Your task to perform on an android device: check out phone information Image 0: 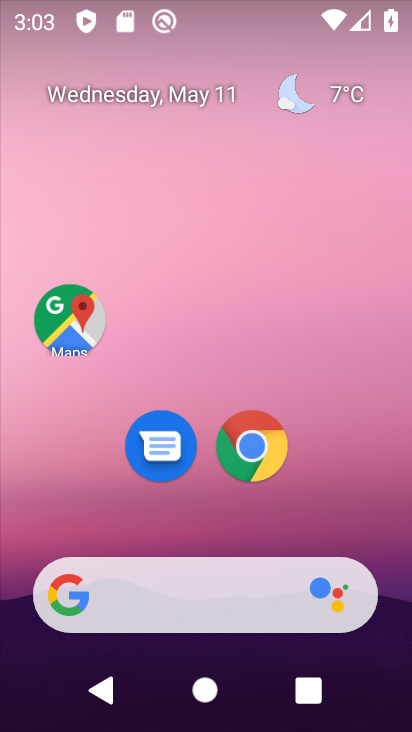
Step 0: drag from (343, 691) to (143, 89)
Your task to perform on an android device: check out phone information Image 1: 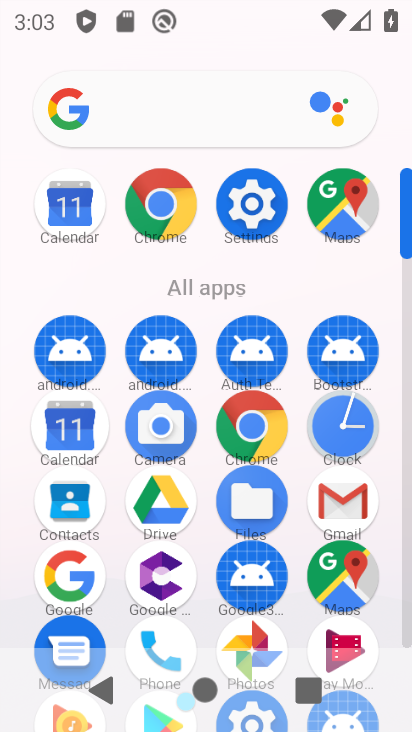
Step 1: click (253, 219)
Your task to perform on an android device: check out phone information Image 2: 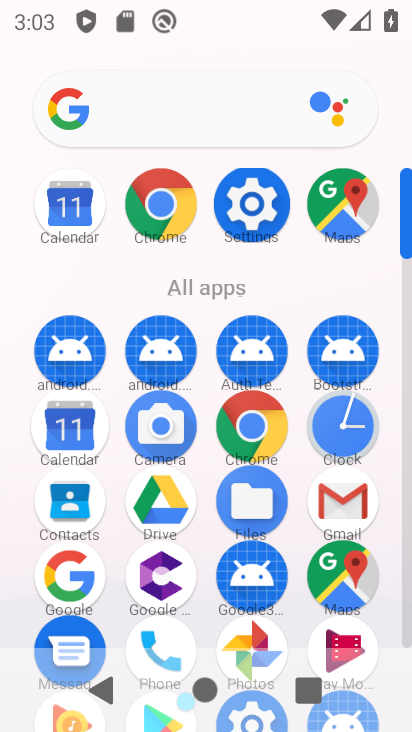
Step 2: click (251, 216)
Your task to perform on an android device: check out phone information Image 3: 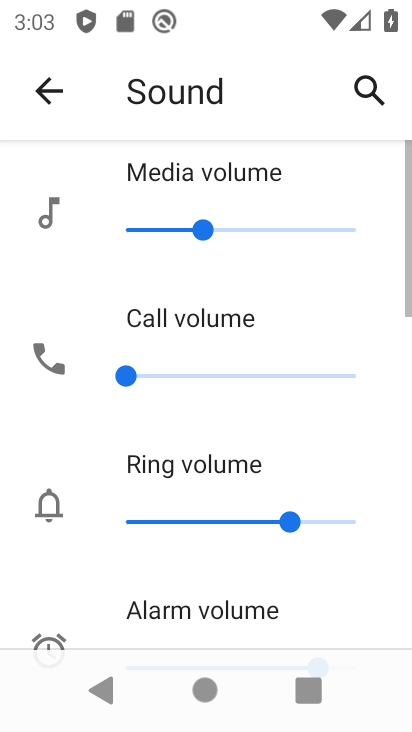
Step 3: drag from (178, 560) to (126, 183)
Your task to perform on an android device: check out phone information Image 4: 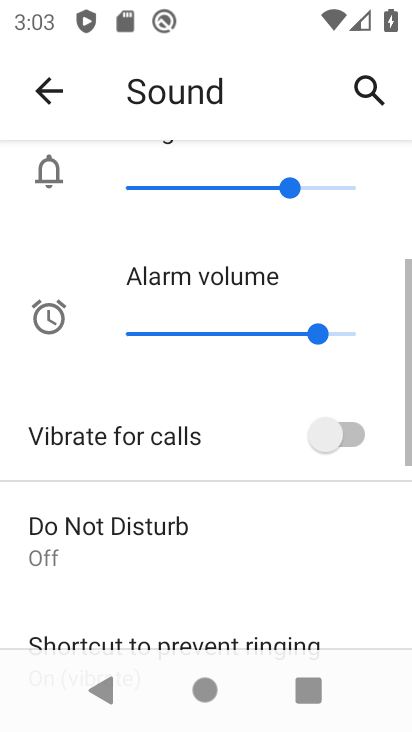
Step 4: click (38, 94)
Your task to perform on an android device: check out phone information Image 5: 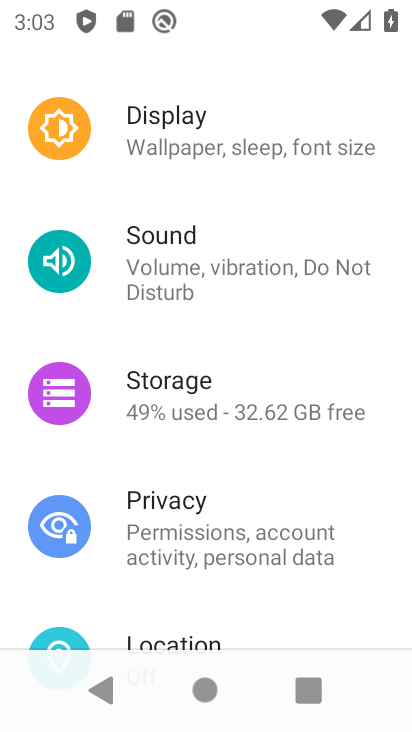
Step 5: drag from (209, 522) to (202, 163)
Your task to perform on an android device: check out phone information Image 6: 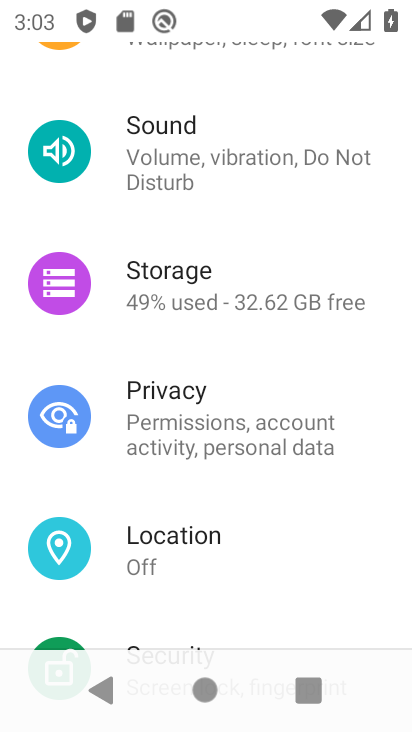
Step 6: drag from (242, 521) to (212, 139)
Your task to perform on an android device: check out phone information Image 7: 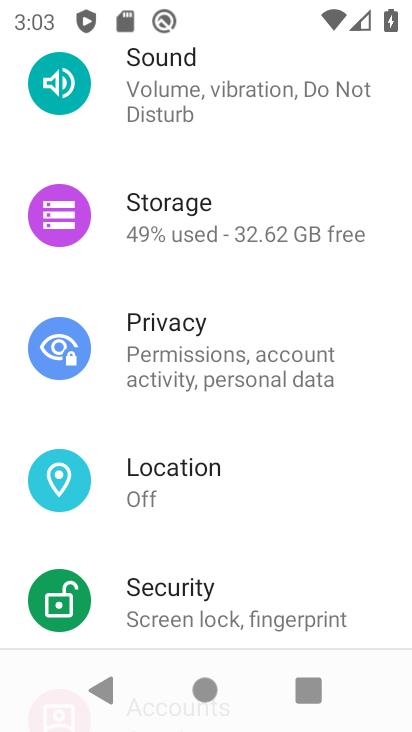
Step 7: drag from (202, 471) to (231, 141)
Your task to perform on an android device: check out phone information Image 8: 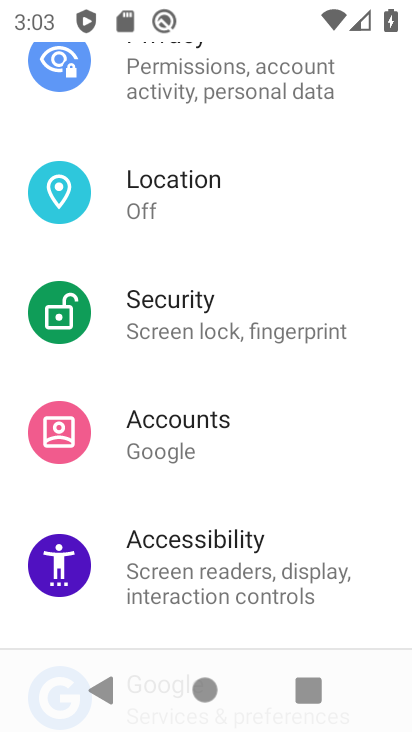
Step 8: drag from (262, 527) to (271, 111)
Your task to perform on an android device: check out phone information Image 9: 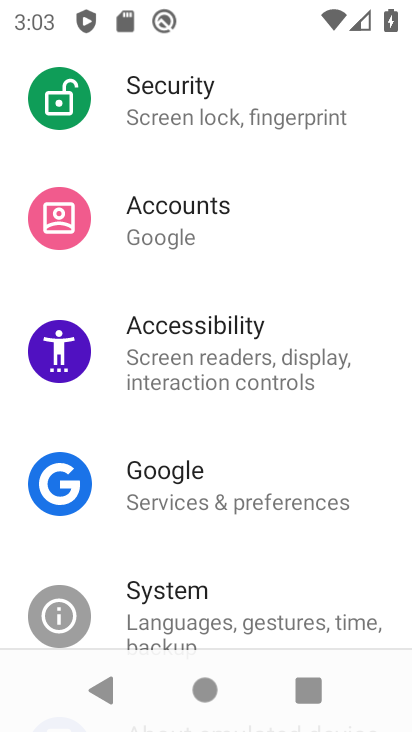
Step 9: drag from (284, 471) to (272, 61)
Your task to perform on an android device: check out phone information Image 10: 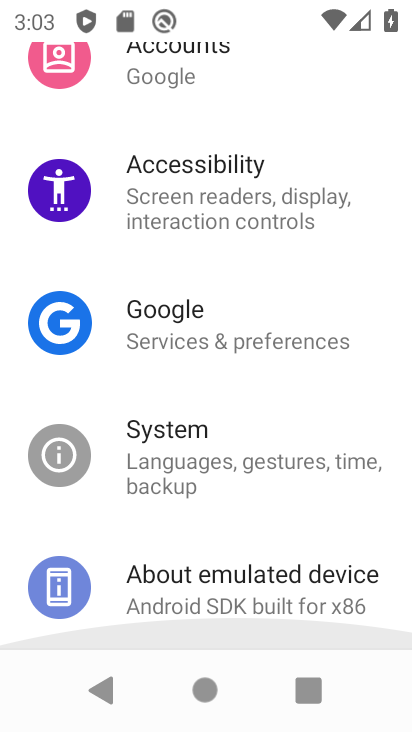
Step 10: drag from (263, 495) to (254, 77)
Your task to perform on an android device: check out phone information Image 11: 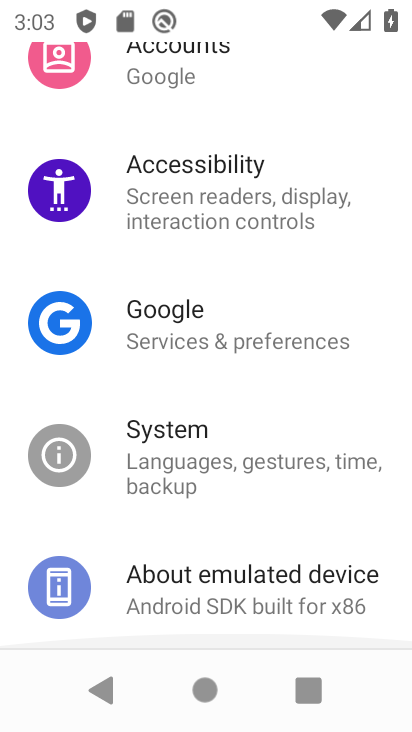
Step 11: drag from (302, 222) to (302, 117)
Your task to perform on an android device: check out phone information Image 12: 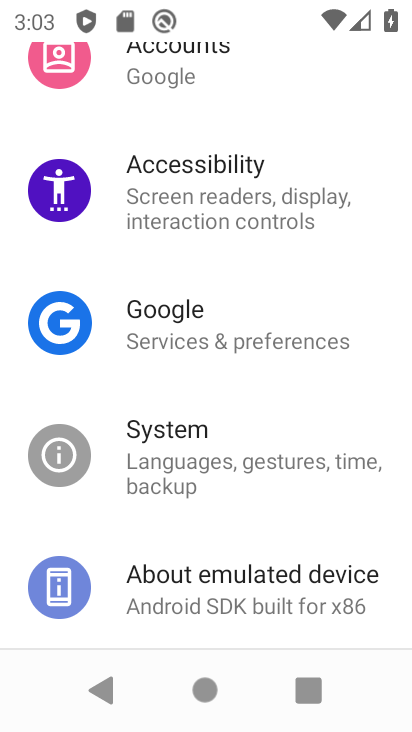
Step 12: click (252, 587)
Your task to perform on an android device: check out phone information Image 13: 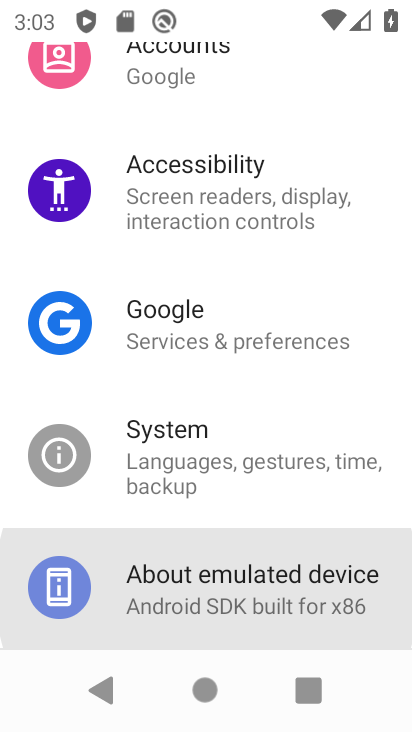
Step 13: click (254, 586)
Your task to perform on an android device: check out phone information Image 14: 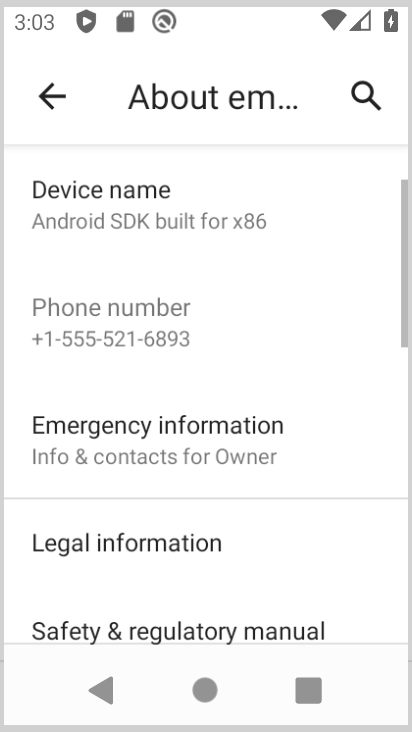
Step 14: click (256, 586)
Your task to perform on an android device: check out phone information Image 15: 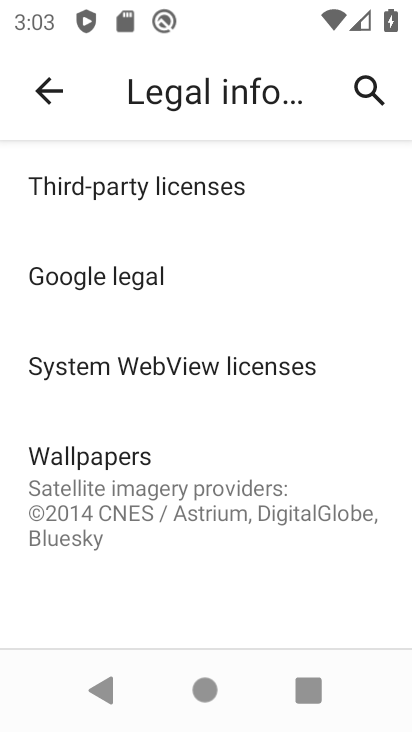
Step 15: drag from (199, 508) to (194, 183)
Your task to perform on an android device: check out phone information Image 16: 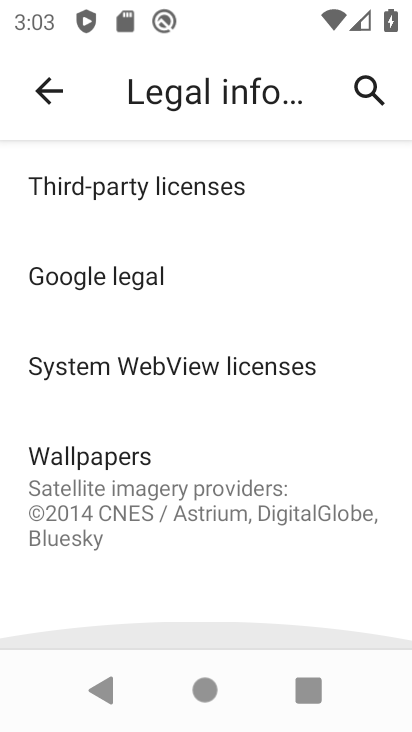
Step 16: drag from (236, 478) to (227, 215)
Your task to perform on an android device: check out phone information Image 17: 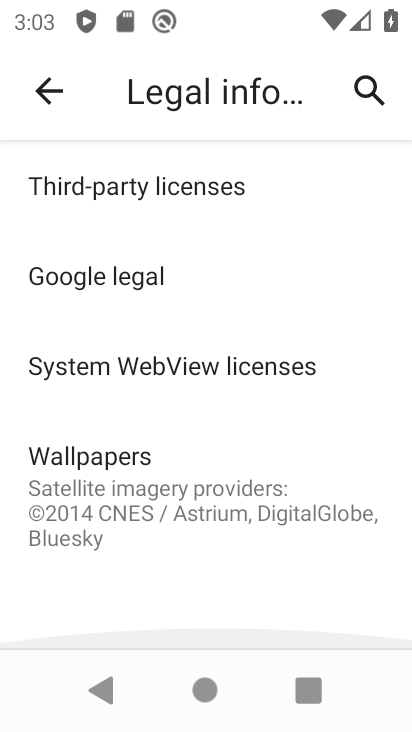
Step 17: drag from (226, 472) to (196, 303)
Your task to perform on an android device: check out phone information Image 18: 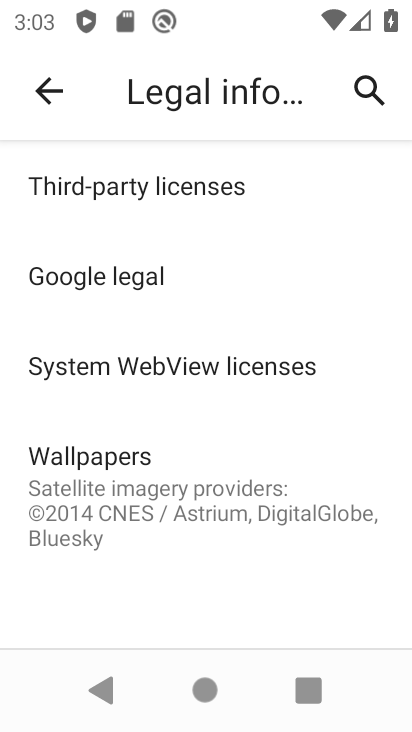
Step 18: click (47, 90)
Your task to perform on an android device: check out phone information Image 19: 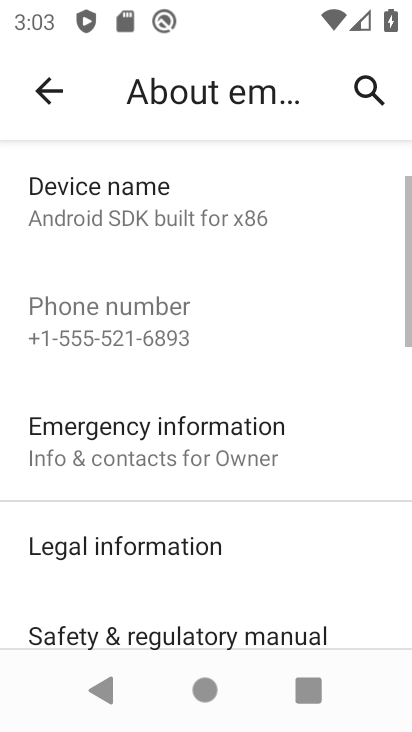
Step 19: drag from (214, 572) to (213, 218)
Your task to perform on an android device: check out phone information Image 20: 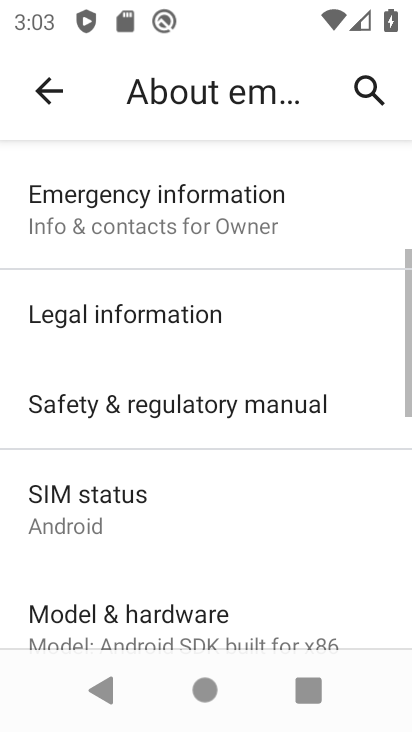
Step 20: drag from (229, 289) to (227, 255)
Your task to perform on an android device: check out phone information Image 21: 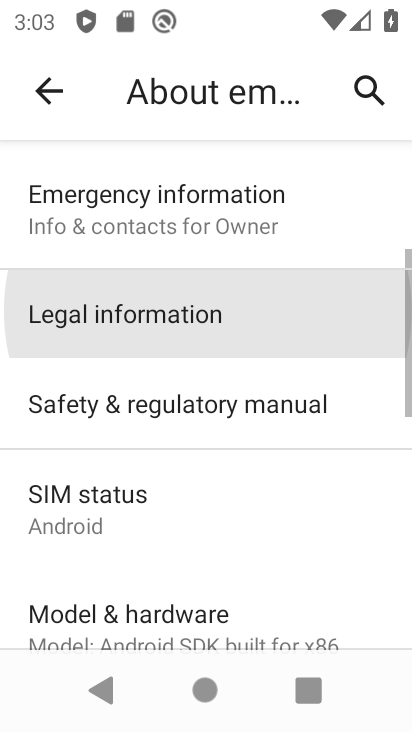
Step 21: click (291, 179)
Your task to perform on an android device: check out phone information Image 22: 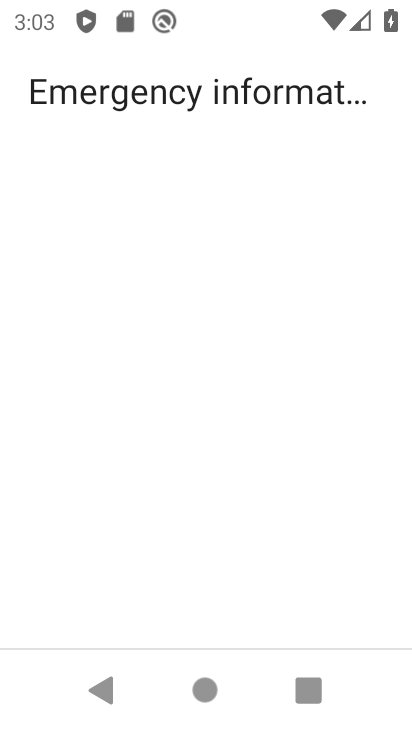
Step 22: task complete